Your task to perform on an android device: What's the weather going to be this weekend? Image 0: 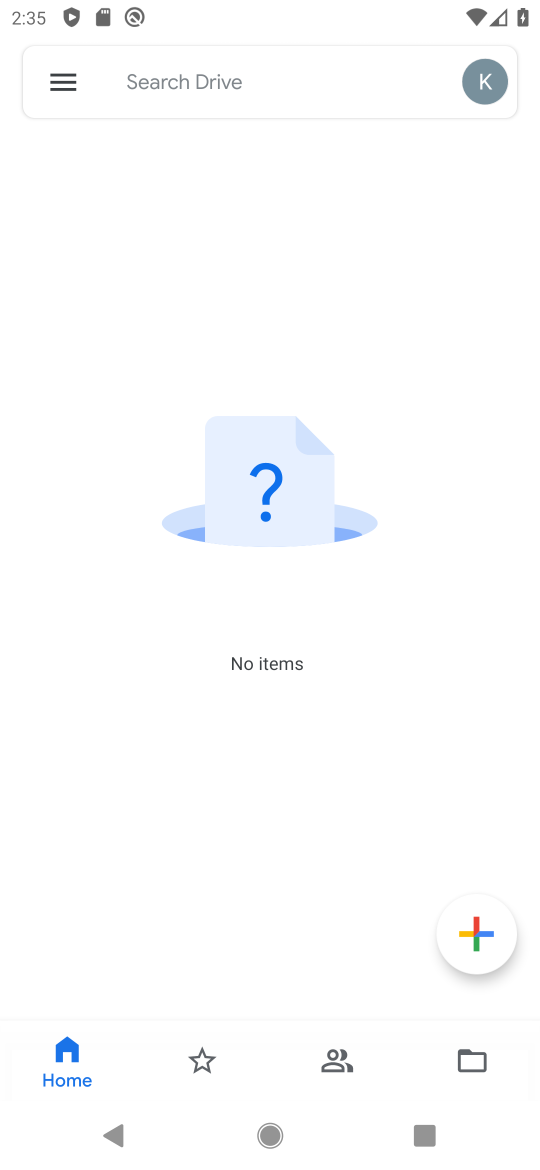
Step 0: press home button
Your task to perform on an android device: What's the weather going to be this weekend? Image 1: 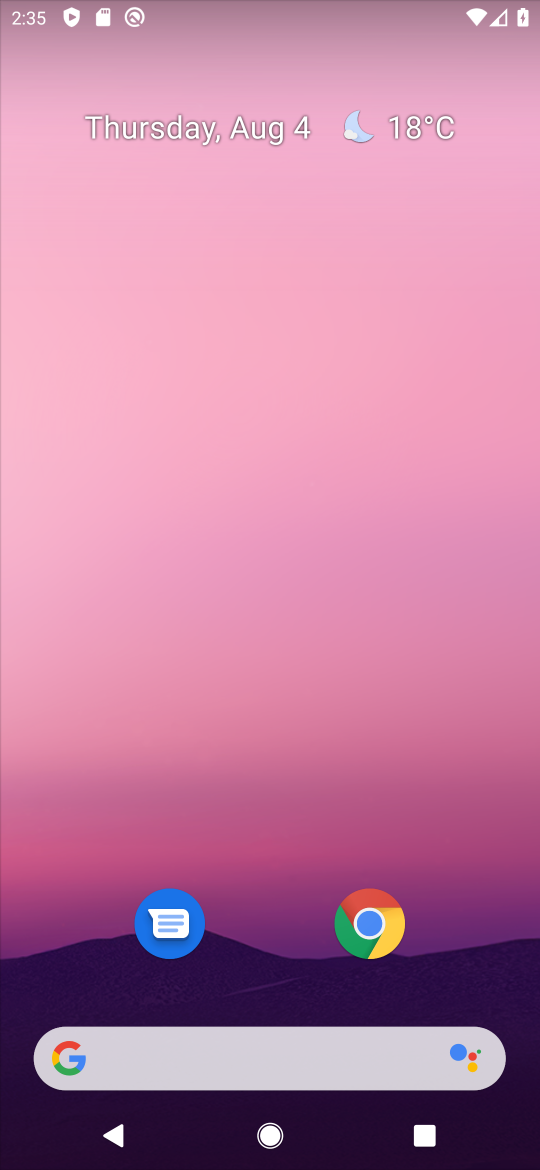
Step 1: drag from (74, 894) to (175, 96)
Your task to perform on an android device: What's the weather going to be this weekend? Image 2: 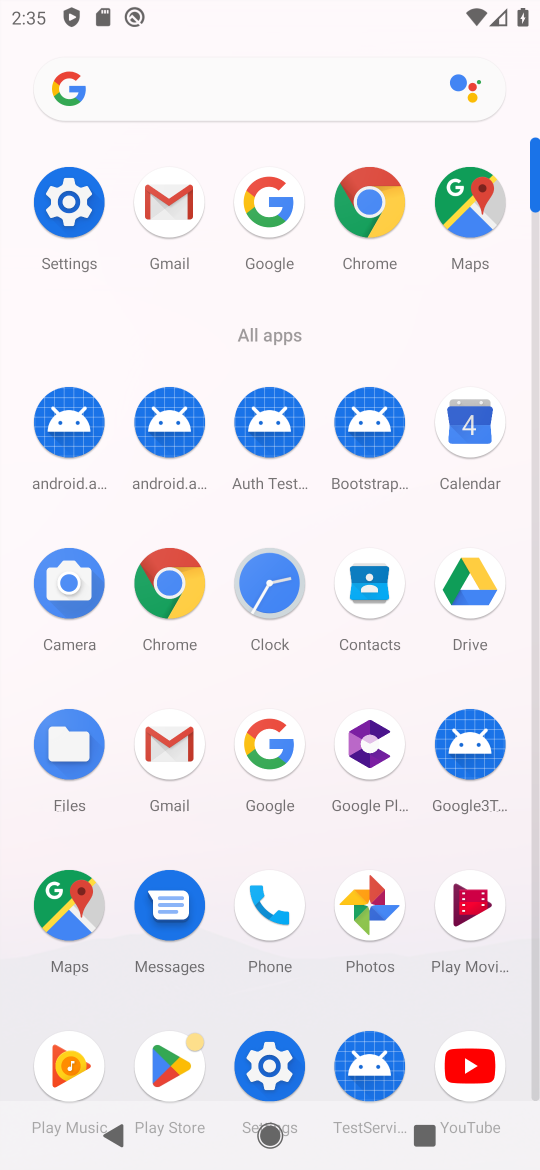
Step 2: click (268, 746)
Your task to perform on an android device: What's the weather going to be this weekend? Image 3: 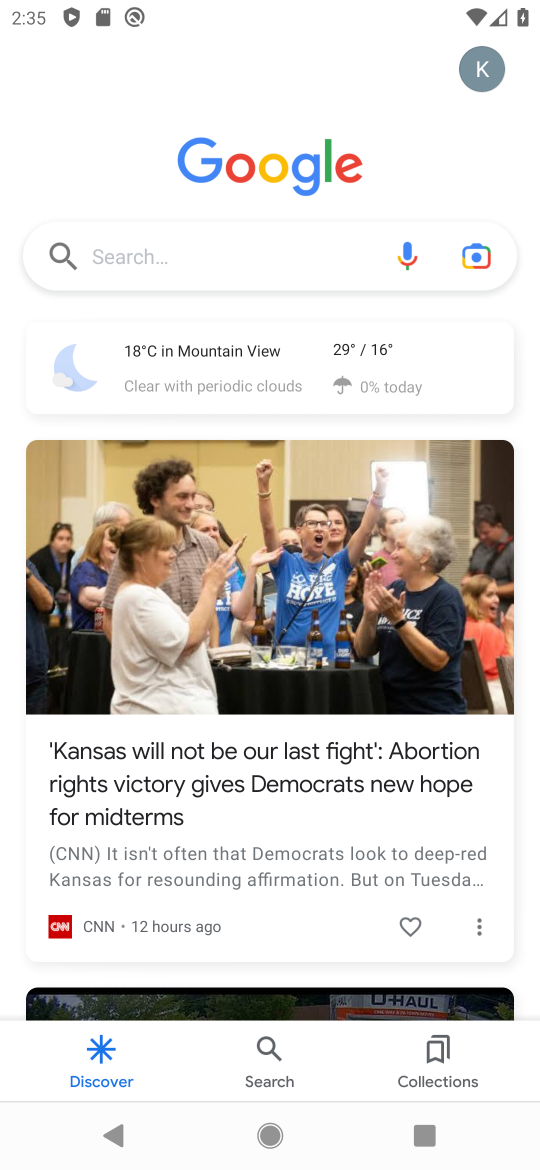
Step 3: click (125, 379)
Your task to perform on an android device: What's the weather going to be this weekend? Image 4: 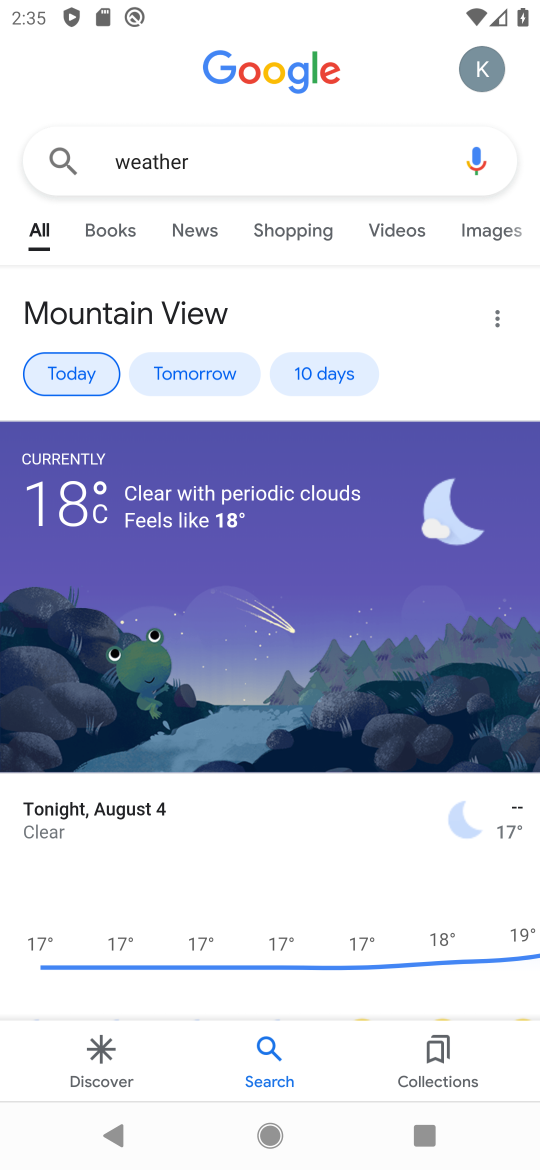
Step 4: task complete